Your task to perform on an android device: change the clock display to show seconds Image 0: 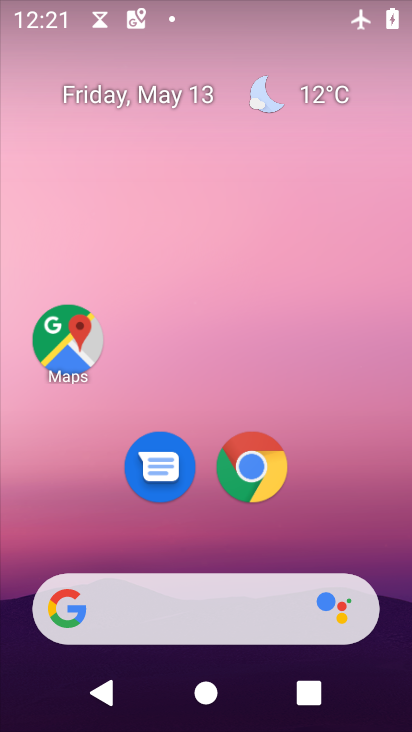
Step 0: drag from (324, 443) to (230, 38)
Your task to perform on an android device: change the clock display to show seconds Image 1: 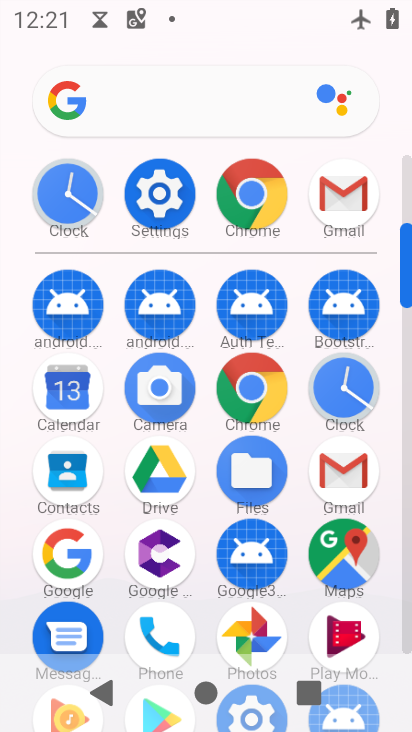
Step 1: click (347, 373)
Your task to perform on an android device: change the clock display to show seconds Image 2: 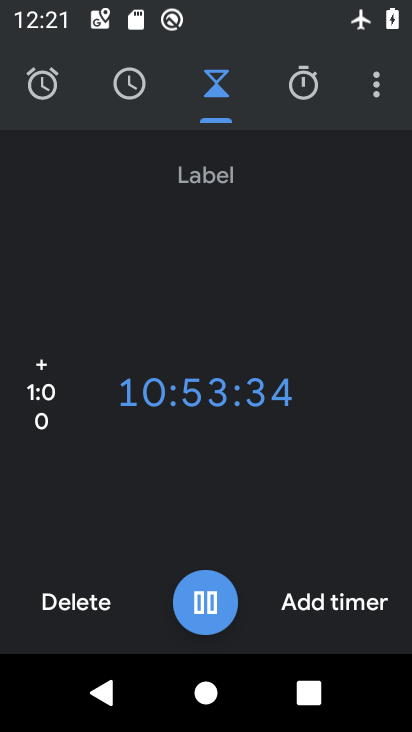
Step 2: click (370, 84)
Your task to perform on an android device: change the clock display to show seconds Image 3: 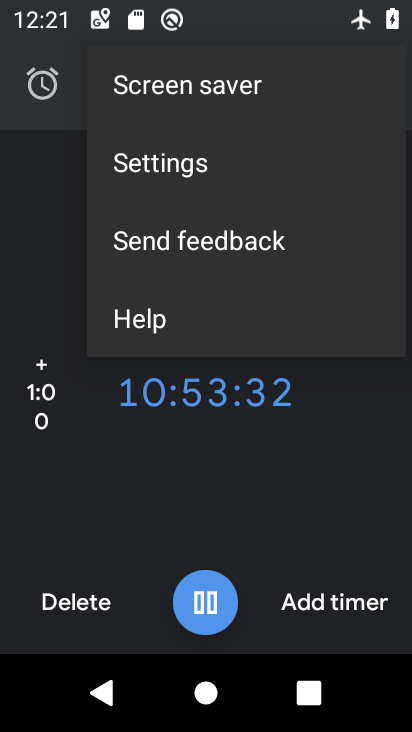
Step 3: click (169, 157)
Your task to perform on an android device: change the clock display to show seconds Image 4: 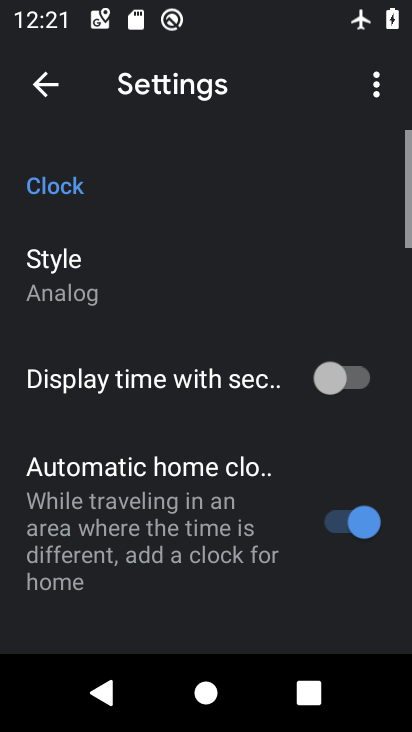
Step 4: click (368, 377)
Your task to perform on an android device: change the clock display to show seconds Image 5: 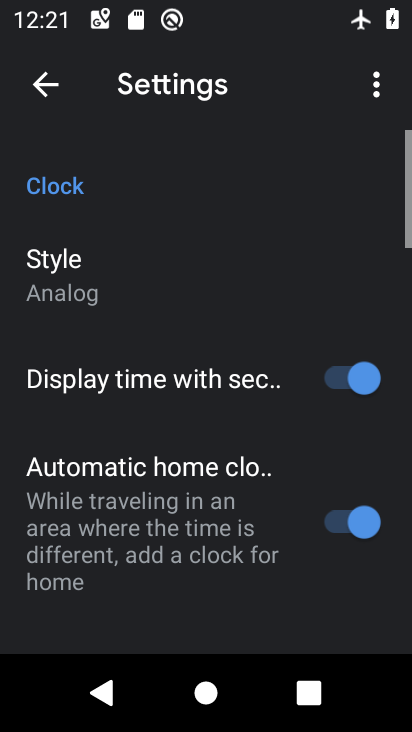
Step 5: task complete